Your task to perform on an android device: toggle notifications settings in the gmail app Image 0: 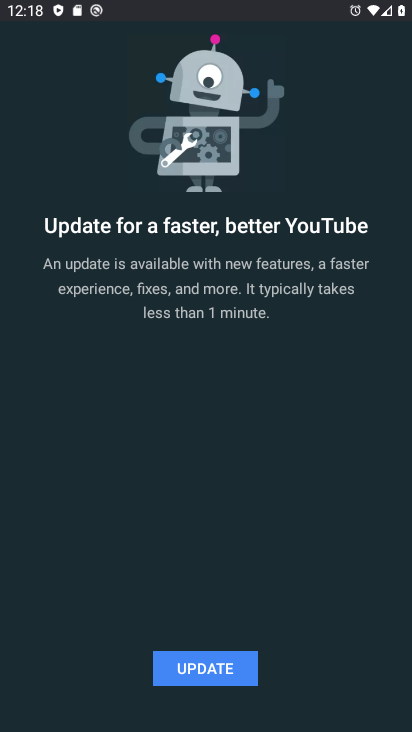
Step 0: press home button
Your task to perform on an android device: toggle notifications settings in the gmail app Image 1: 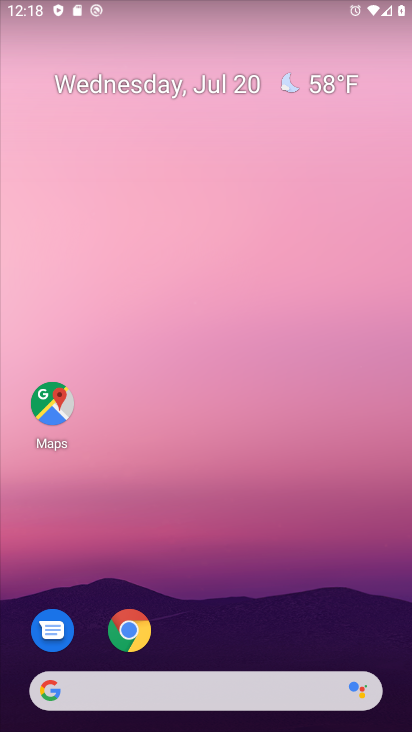
Step 1: drag from (220, 690) to (309, 144)
Your task to perform on an android device: toggle notifications settings in the gmail app Image 2: 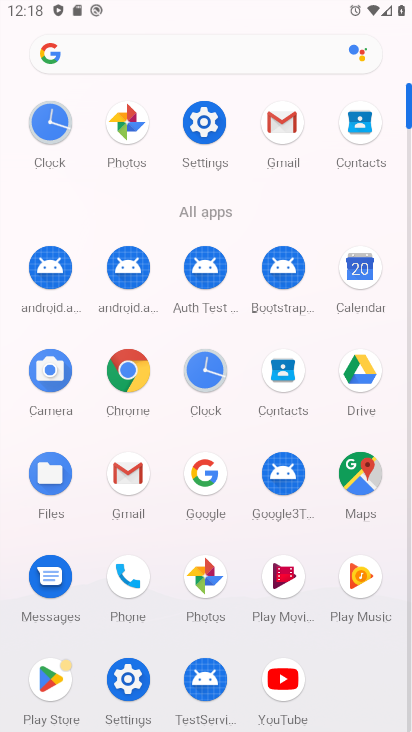
Step 2: click (284, 122)
Your task to perform on an android device: toggle notifications settings in the gmail app Image 3: 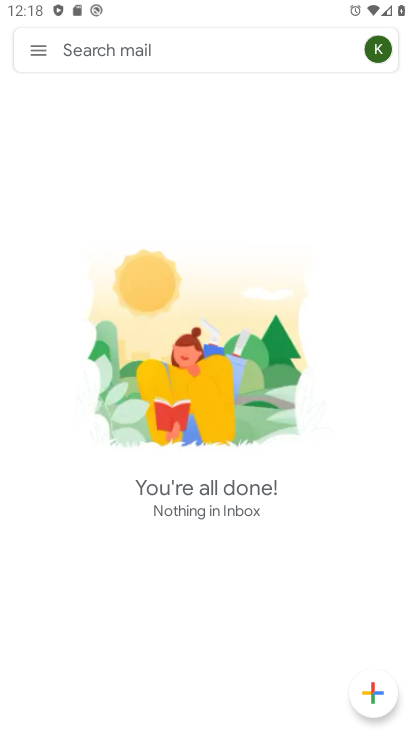
Step 3: click (42, 47)
Your task to perform on an android device: toggle notifications settings in the gmail app Image 4: 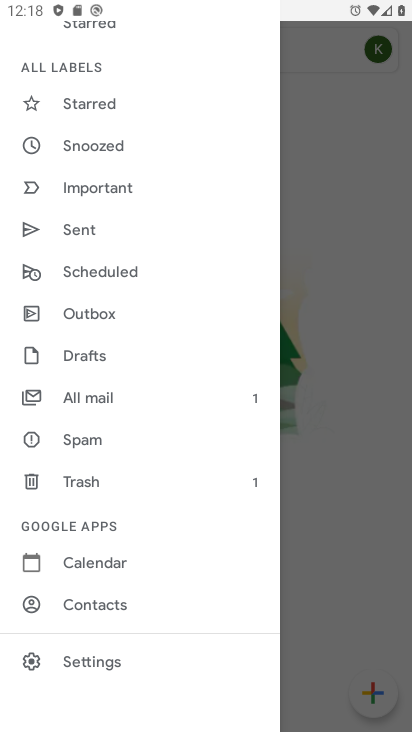
Step 4: click (129, 660)
Your task to perform on an android device: toggle notifications settings in the gmail app Image 5: 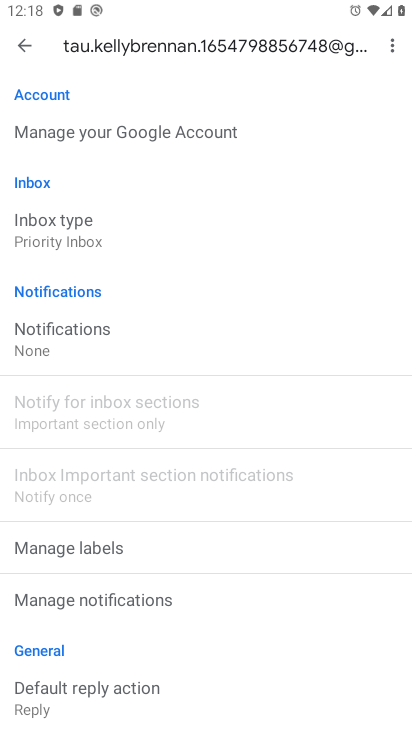
Step 5: click (59, 345)
Your task to perform on an android device: toggle notifications settings in the gmail app Image 6: 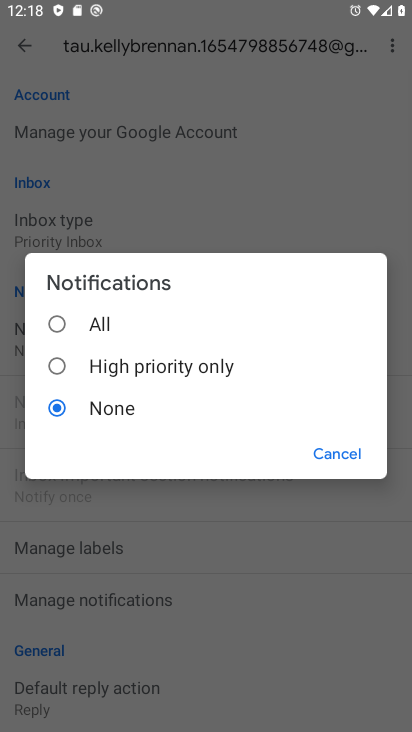
Step 6: click (60, 321)
Your task to perform on an android device: toggle notifications settings in the gmail app Image 7: 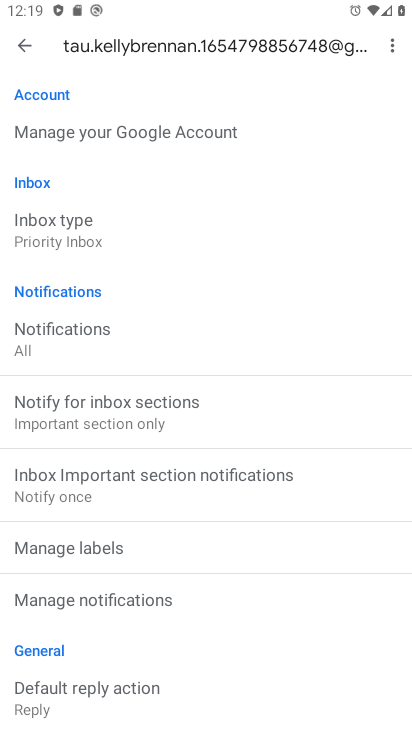
Step 7: task complete